Your task to perform on an android device: What is the recent news? Image 0: 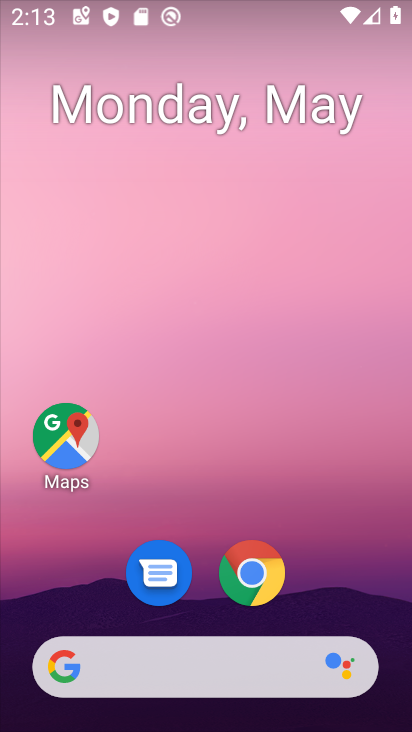
Step 0: drag from (3, 340) to (333, 277)
Your task to perform on an android device: What is the recent news? Image 1: 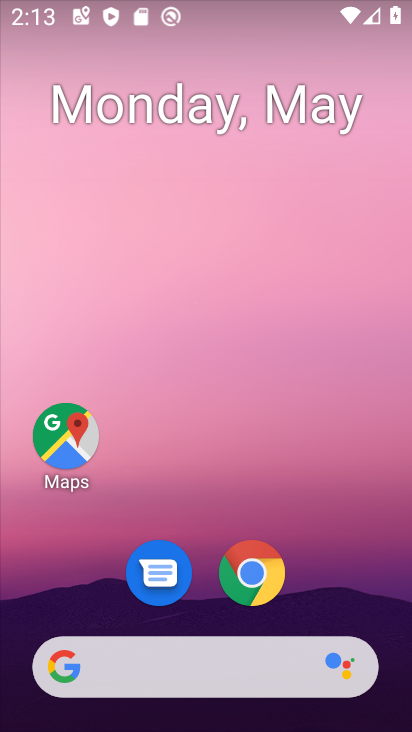
Step 1: task complete